Your task to perform on an android device: Open the stopwatch Image 0: 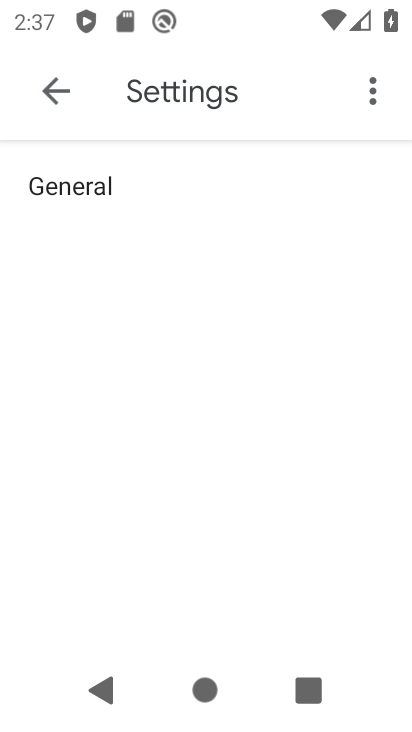
Step 0: press home button
Your task to perform on an android device: Open the stopwatch Image 1: 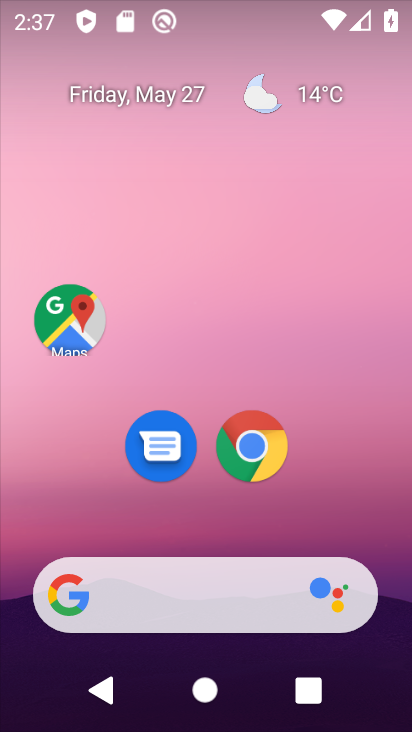
Step 1: drag from (206, 553) to (343, 136)
Your task to perform on an android device: Open the stopwatch Image 2: 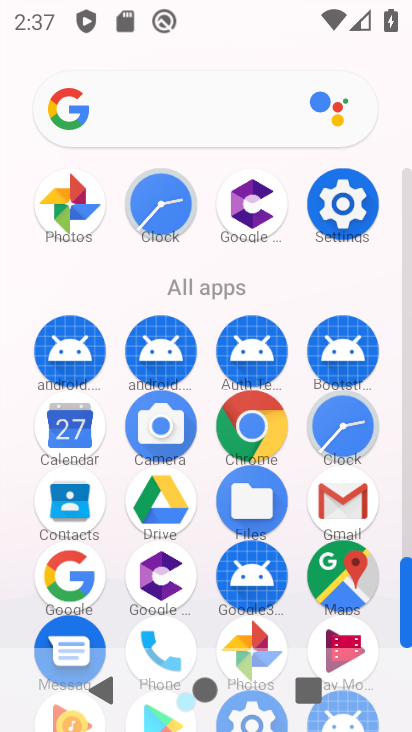
Step 2: click (344, 433)
Your task to perform on an android device: Open the stopwatch Image 3: 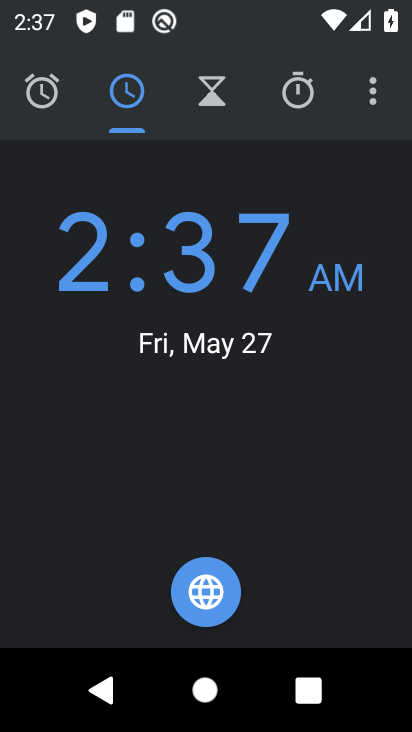
Step 3: click (302, 97)
Your task to perform on an android device: Open the stopwatch Image 4: 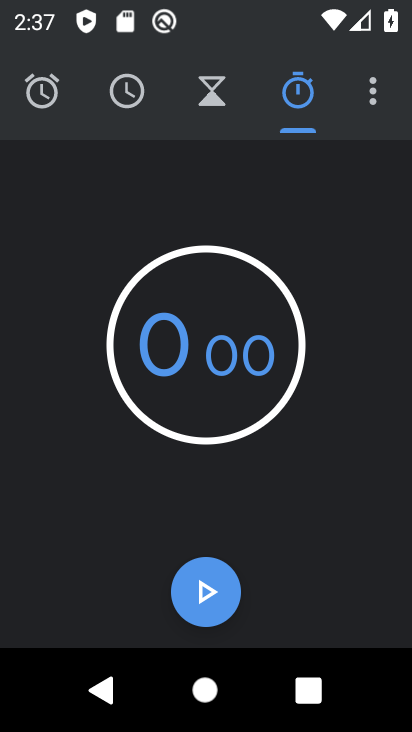
Step 4: task complete